Your task to perform on an android device: Go to calendar. Show me events next week Image 0: 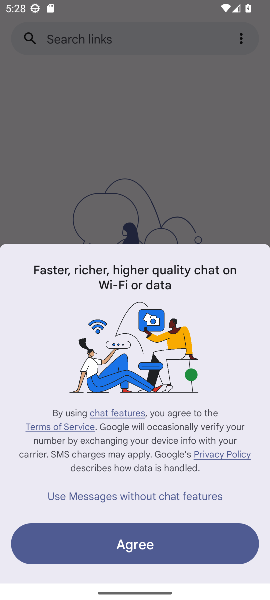
Step 0: press home button
Your task to perform on an android device: Go to calendar. Show me events next week Image 1: 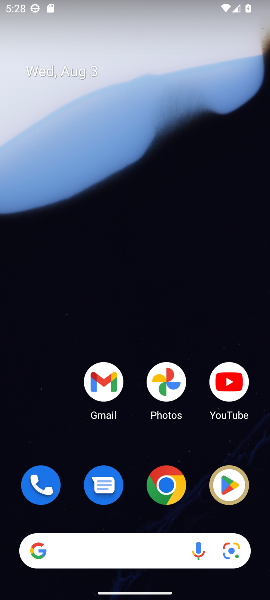
Step 1: drag from (134, 509) to (135, 147)
Your task to perform on an android device: Go to calendar. Show me events next week Image 2: 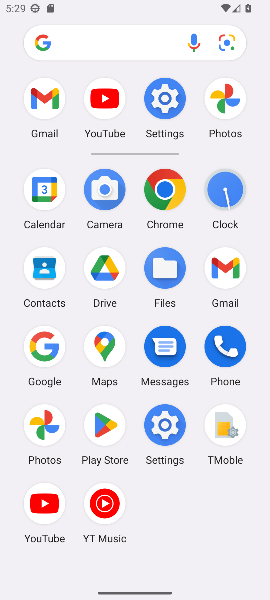
Step 2: click (45, 206)
Your task to perform on an android device: Go to calendar. Show me events next week Image 3: 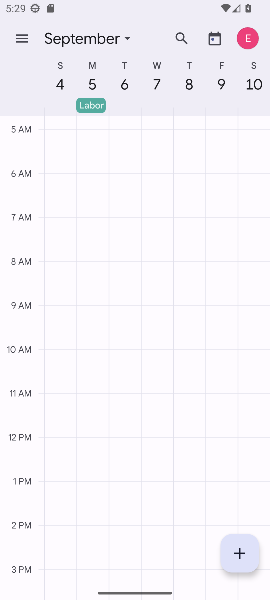
Step 3: click (100, 44)
Your task to perform on an android device: Go to calendar. Show me events next week Image 4: 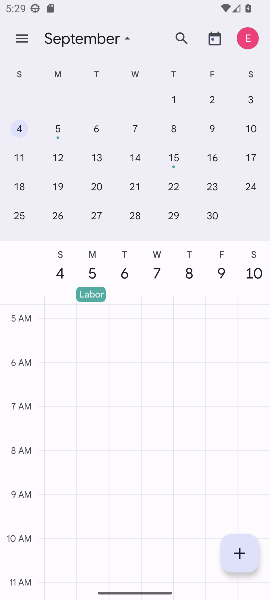
Step 4: drag from (65, 159) to (268, 163)
Your task to perform on an android device: Go to calendar. Show me events next week Image 5: 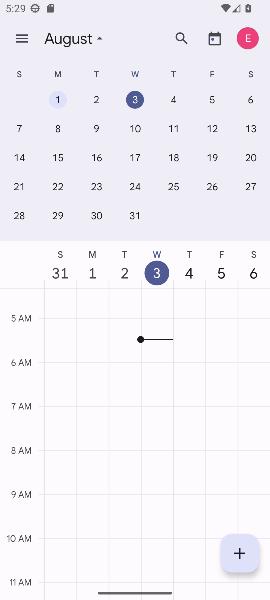
Step 5: click (22, 40)
Your task to perform on an android device: Go to calendar. Show me events next week Image 6: 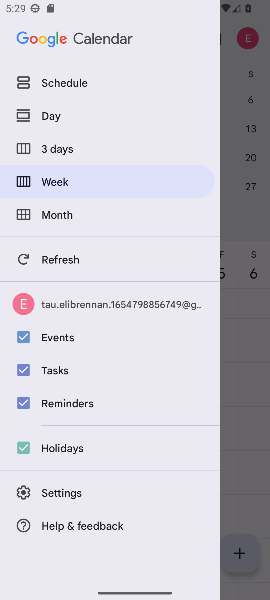
Step 6: click (61, 370)
Your task to perform on an android device: Go to calendar. Show me events next week Image 7: 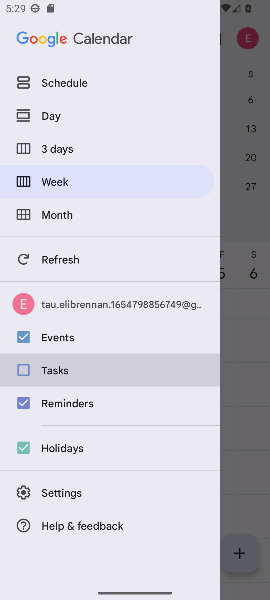
Step 7: click (48, 404)
Your task to perform on an android device: Go to calendar. Show me events next week Image 8: 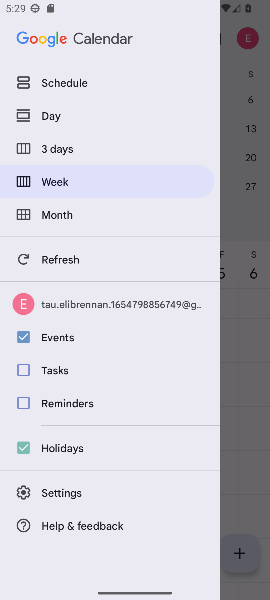
Step 8: click (50, 449)
Your task to perform on an android device: Go to calendar. Show me events next week Image 9: 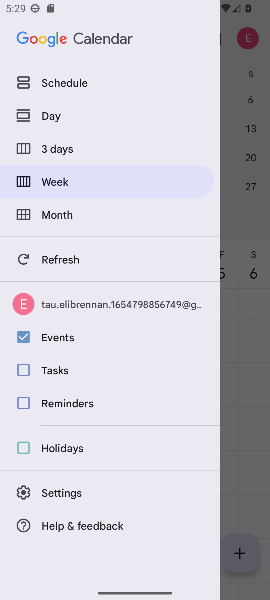
Step 9: click (55, 185)
Your task to perform on an android device: Go to calendar. Show me events next week Image 10: 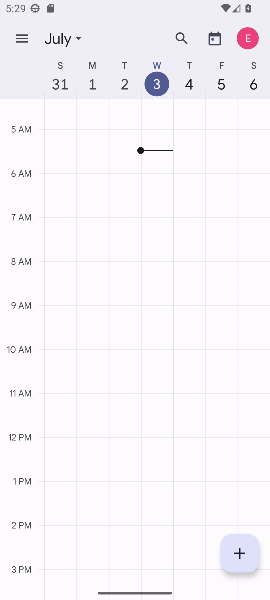
Step 10: task complete